Your task to perform on an android device: Search for vegetarian restaurants on Maps Image 0: 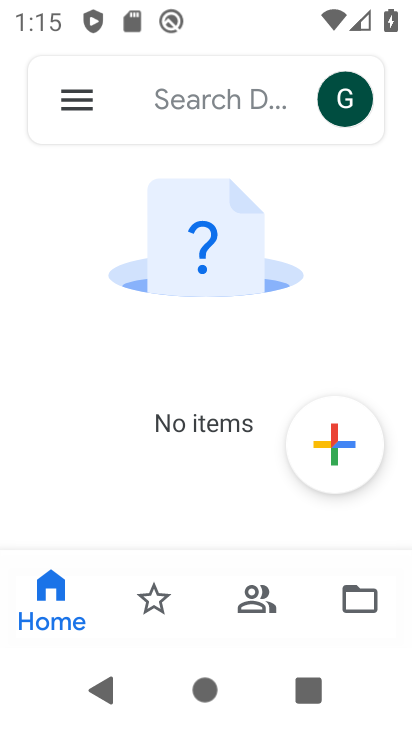
Step 0: press home button
Your task to perform on an android device: Search for vegetarian restaurants on Maps Image 1: 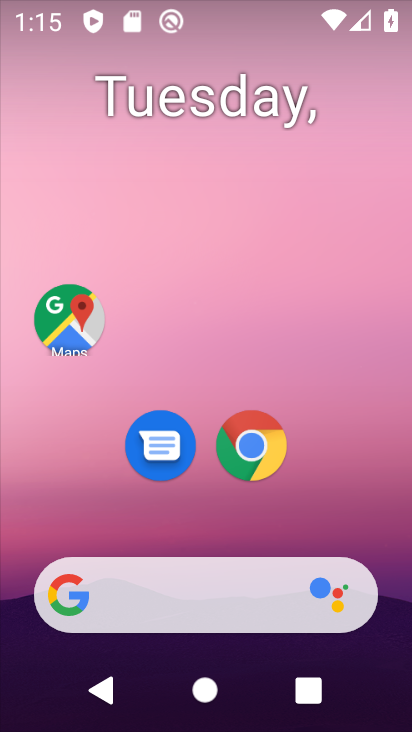
Step 1: drag from (203, 523) to (207, 61)
Your task to perform on an android device: Search for vegetarian restaurants on Maps Image 2: 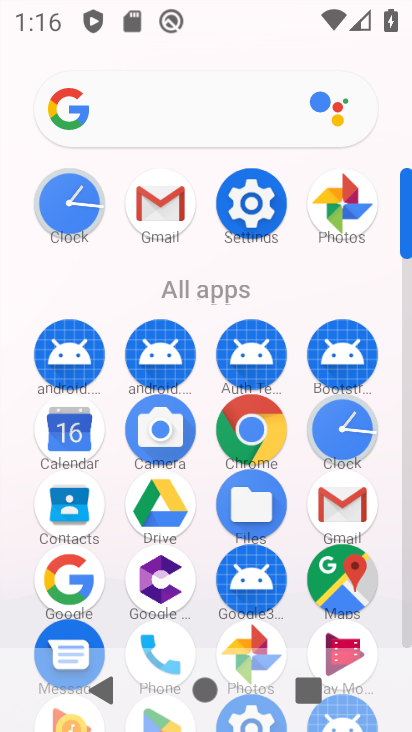
Step 2: click (343, 576)
Your task to perform on an android device: Search for vegetarian restaurants on Maps Image 3: 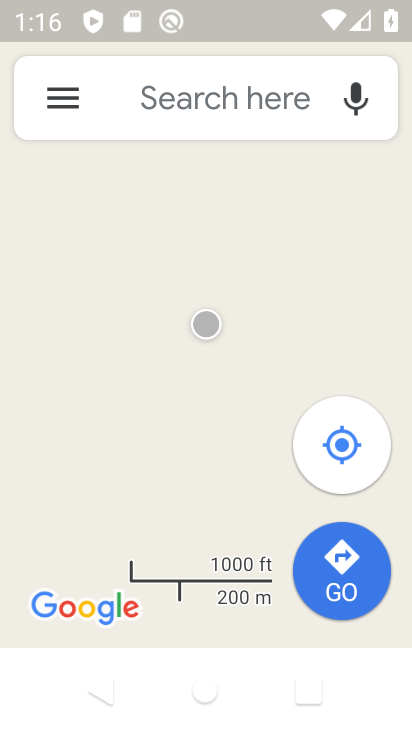
Step 3: click (149, 95)
Your task to perform on an android device: Search for vegetarian restaurants on Maps Image 4: 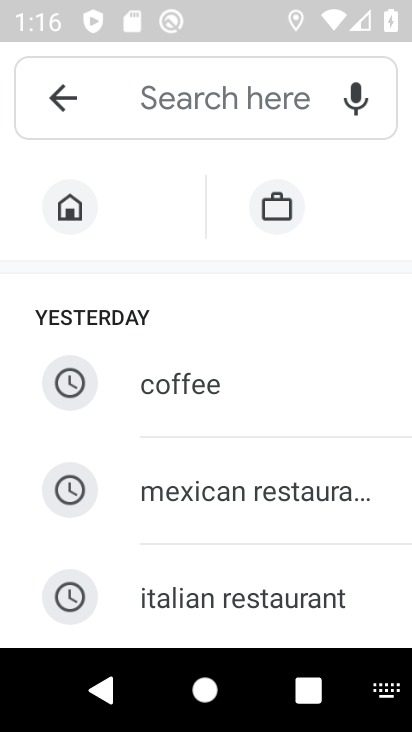
Step 4: drag from (238, 559) to (243, 231)
Your task to perform on an android device: Search for vegetarian restaurants on Maps Image 5: 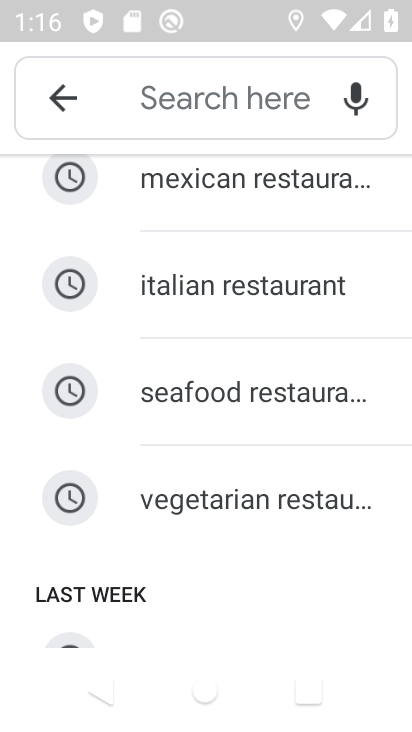
Step 5: click (242, 502)
Your task to perform on an android device: Search for vegetarian restaurants on Maps Image 6: 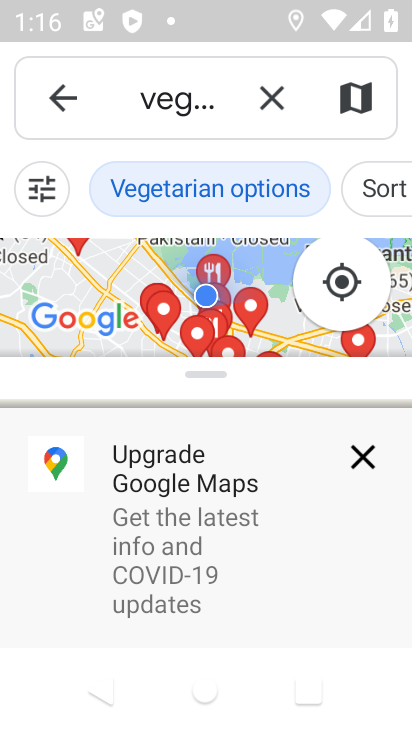
Step 6: click (359, 455)
Your task to perform on an android device: Search for vegetarian restaurants on Maps Image 7: 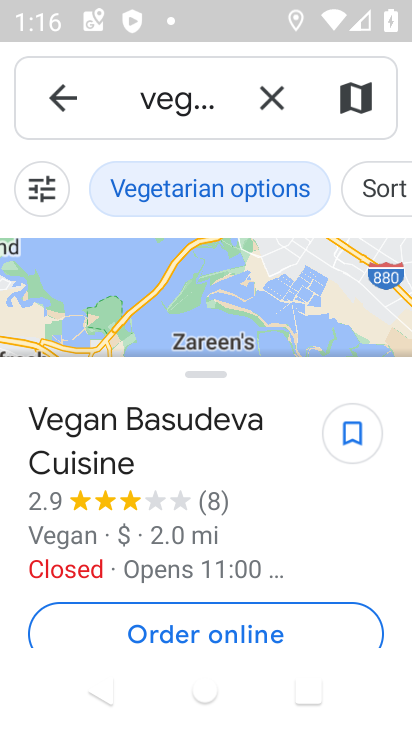
Step 7: task complete